Your task to perform on an android device: What is the speed of light? Image 0: 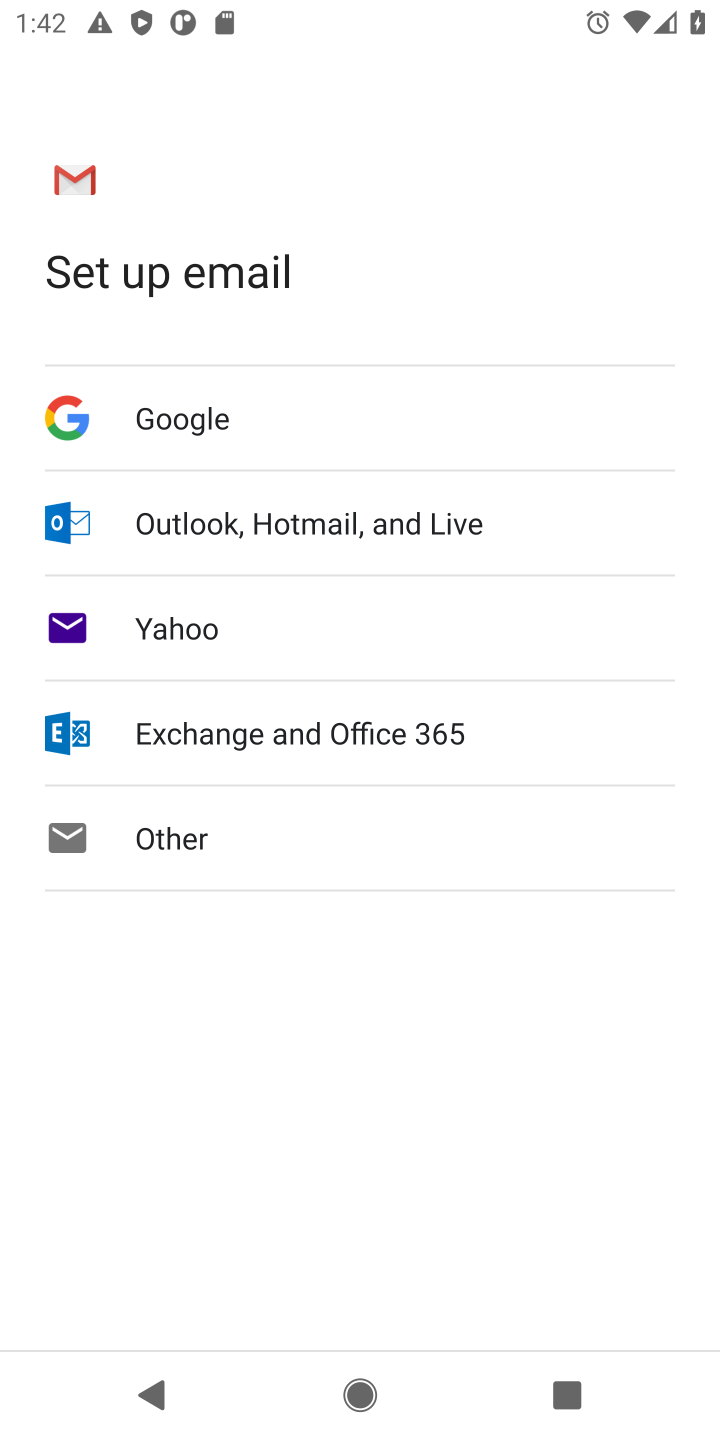
Step 0: press home button
Your task to perform on an android device: What is the speed of light? Image 1: 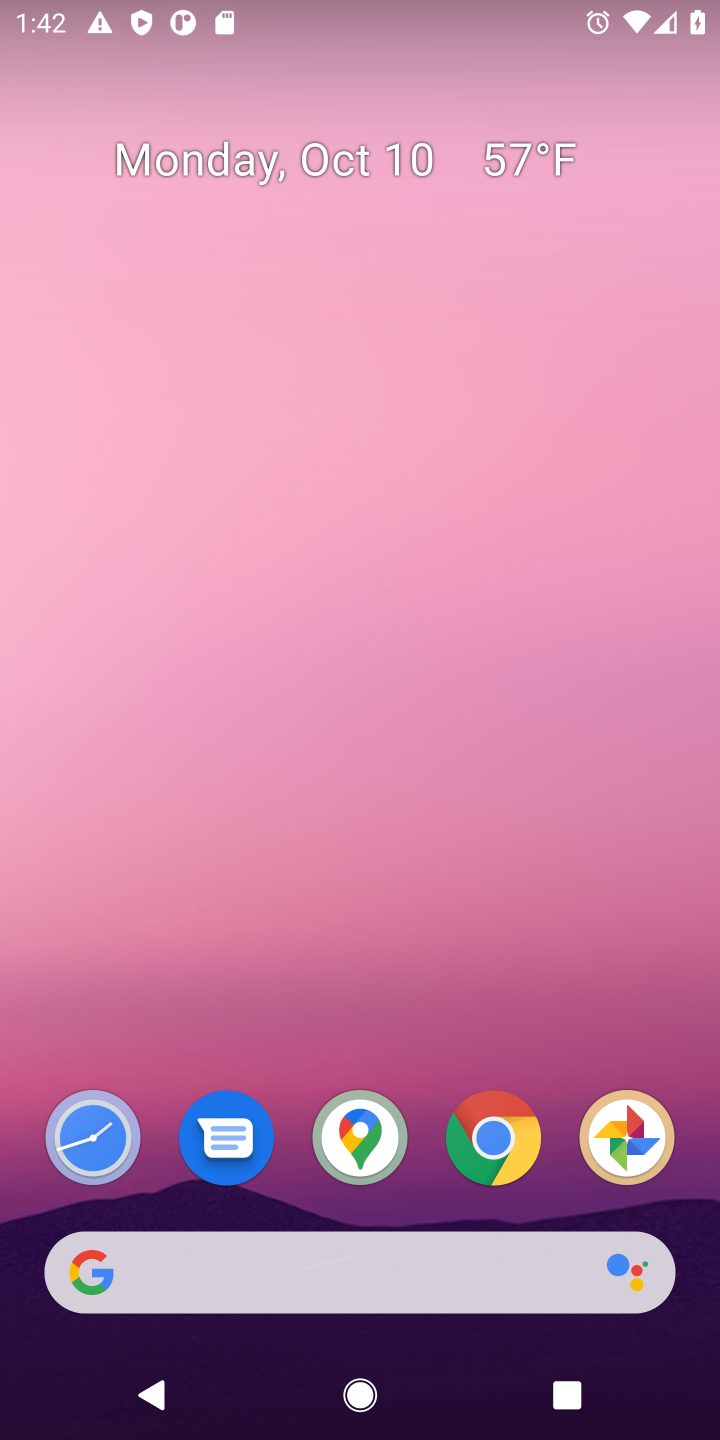
Step 1: click (220, 1261)
Your task to perform on an android device: What is the speed of light? Image 2: 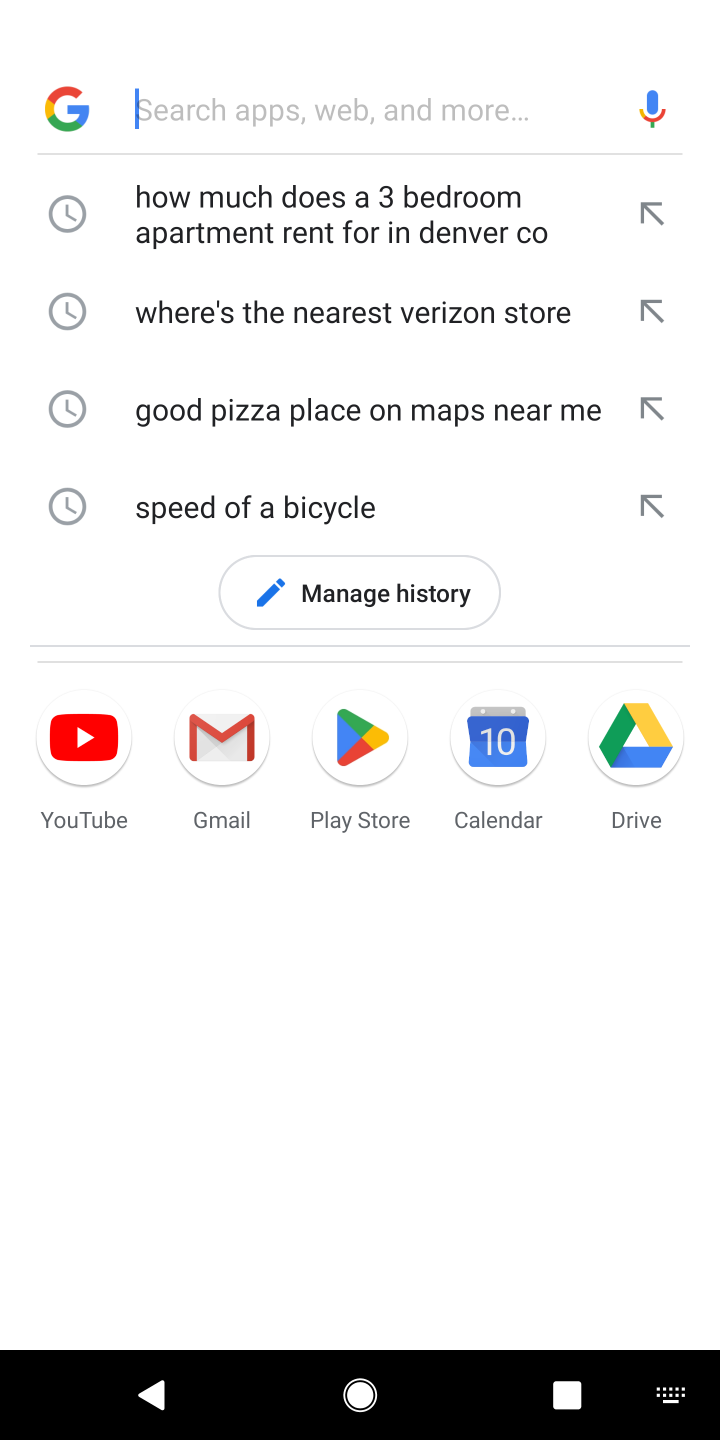
Step 2: type "speed if light?"
Your task to perform on an android device: What is the speed of light? Image 3: 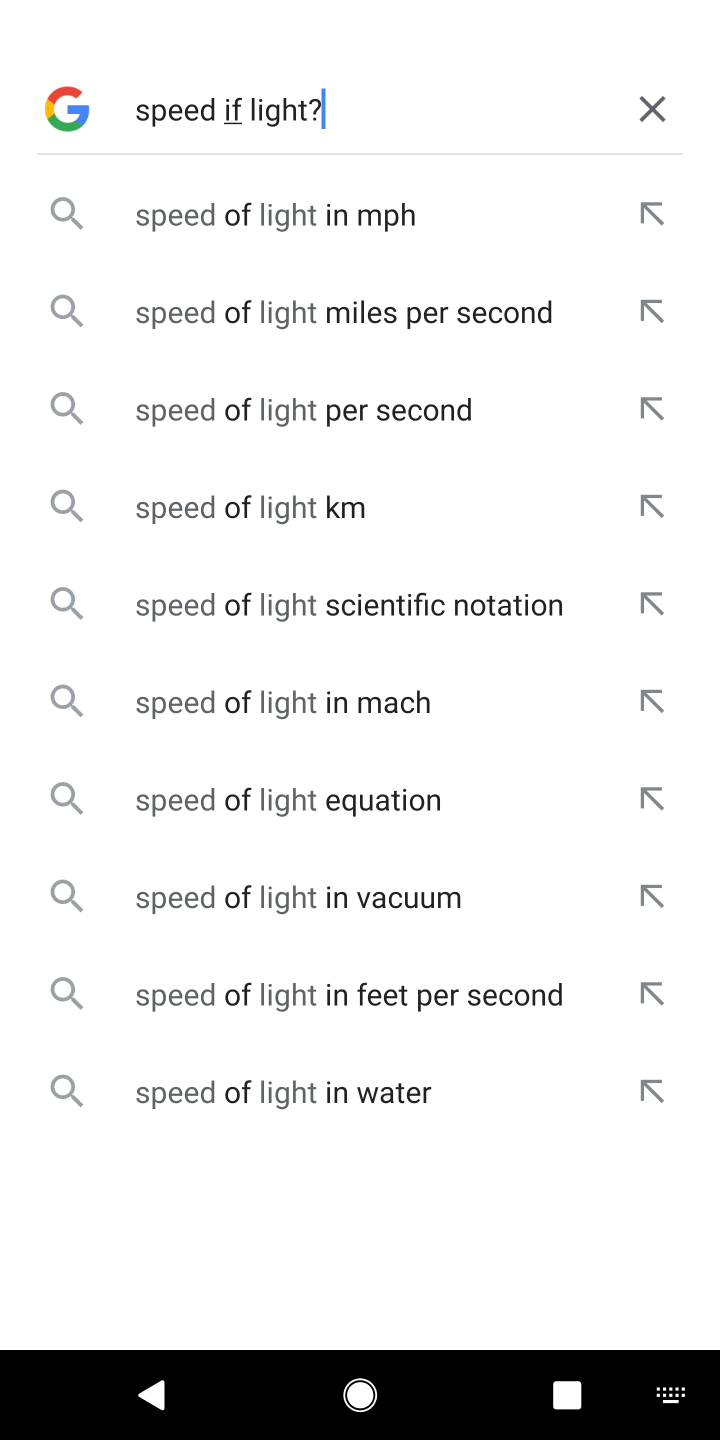
Step 3: click (220, 212)
Your task to perform on an android device: What is the speed of light? Image 4: 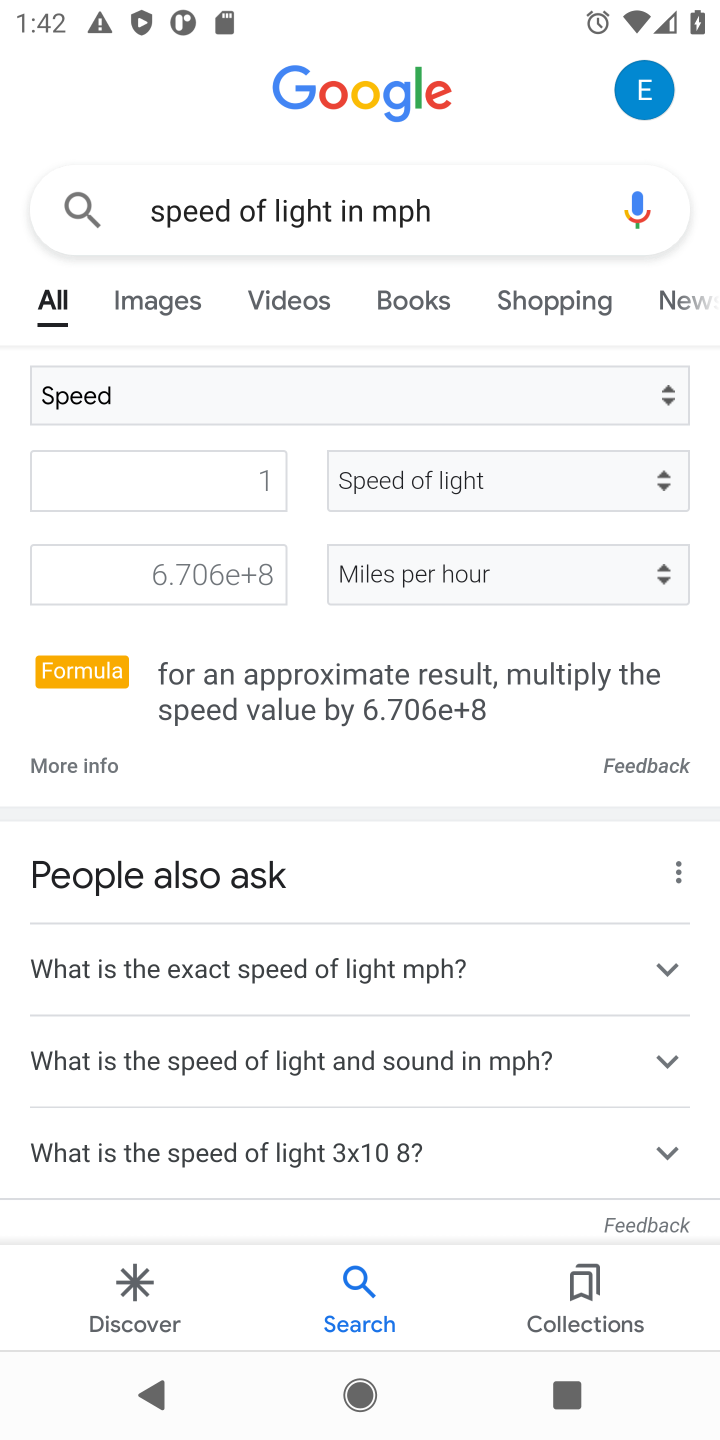
Step 4: task complete